Your task to perform on an android device: see tabs open on other devices in the chrome app Image 0: 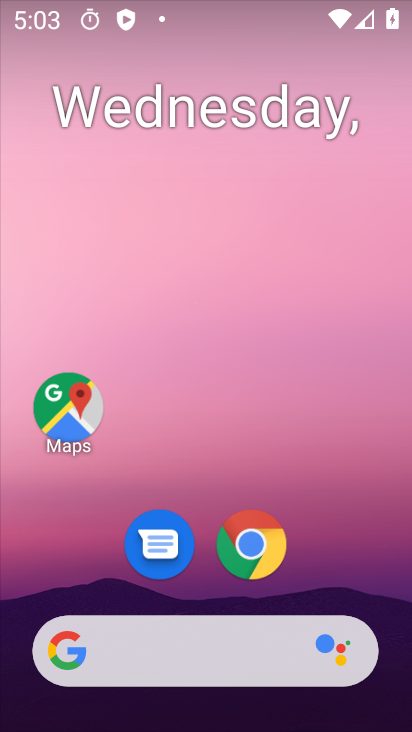
Step 0: click (277, 550)
Your task to perform on an android device: see tabs open on other devices in the chrome app Image 1: 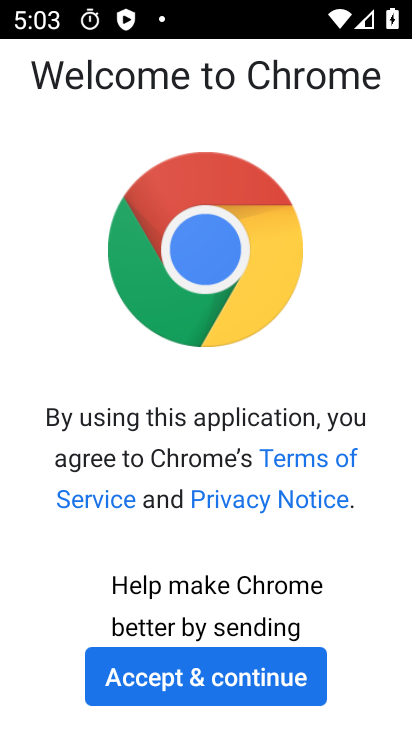
Step 1: click (163, 677)
Your task to perform on an android device: see tabs open on other devices in the chrome app Image 2: 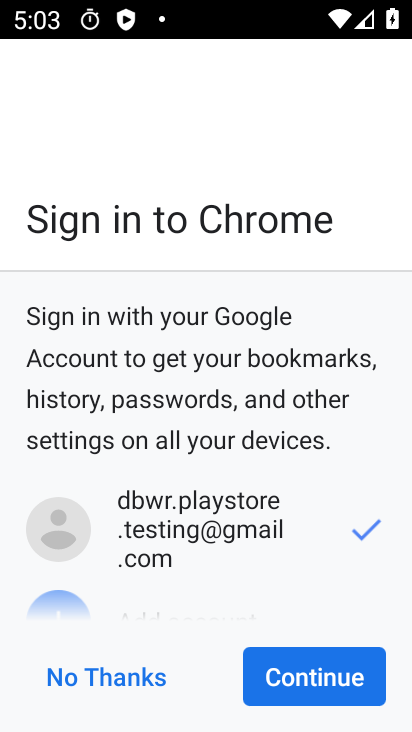
Step 2: click (335, 680)
Your task to perform on an android device: see tabs open on other devices in the chrome app Image 3: 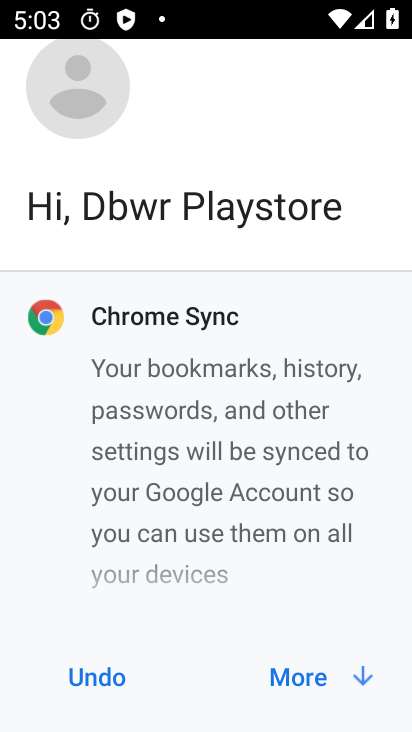
Step 3: click (314, 689)
Your task to perform on an android device: see tabs open on other devices in the chrome app Image 4: 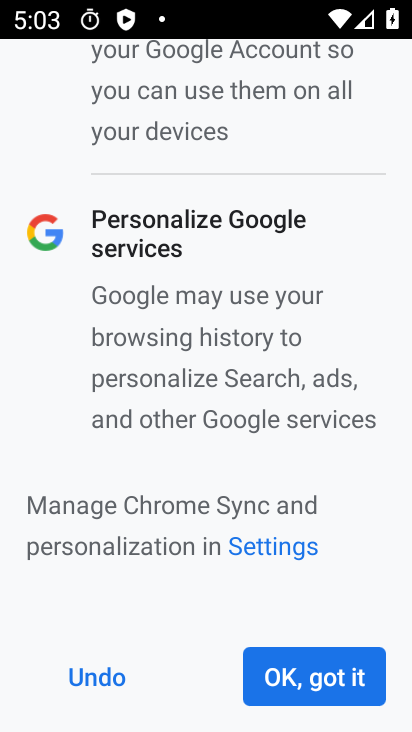
Step 4: click (310, 675)
Your task to perform on an android device: see tabs open on other devices in the chrome app Image 5: 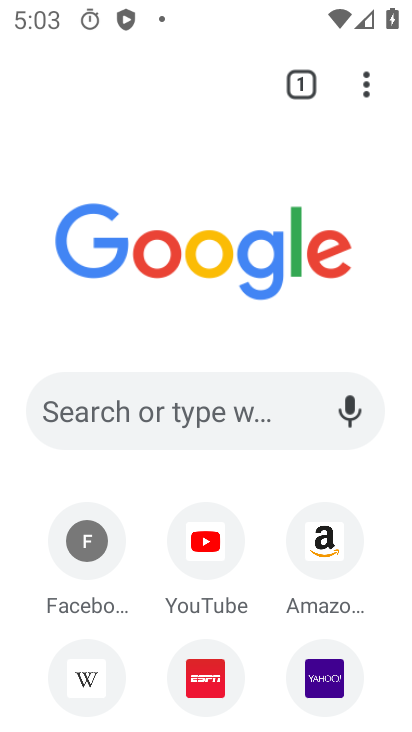
Step 5: task complete